Your task to perform on an android device: Open Youtube and go to "Your channel" Image 0: 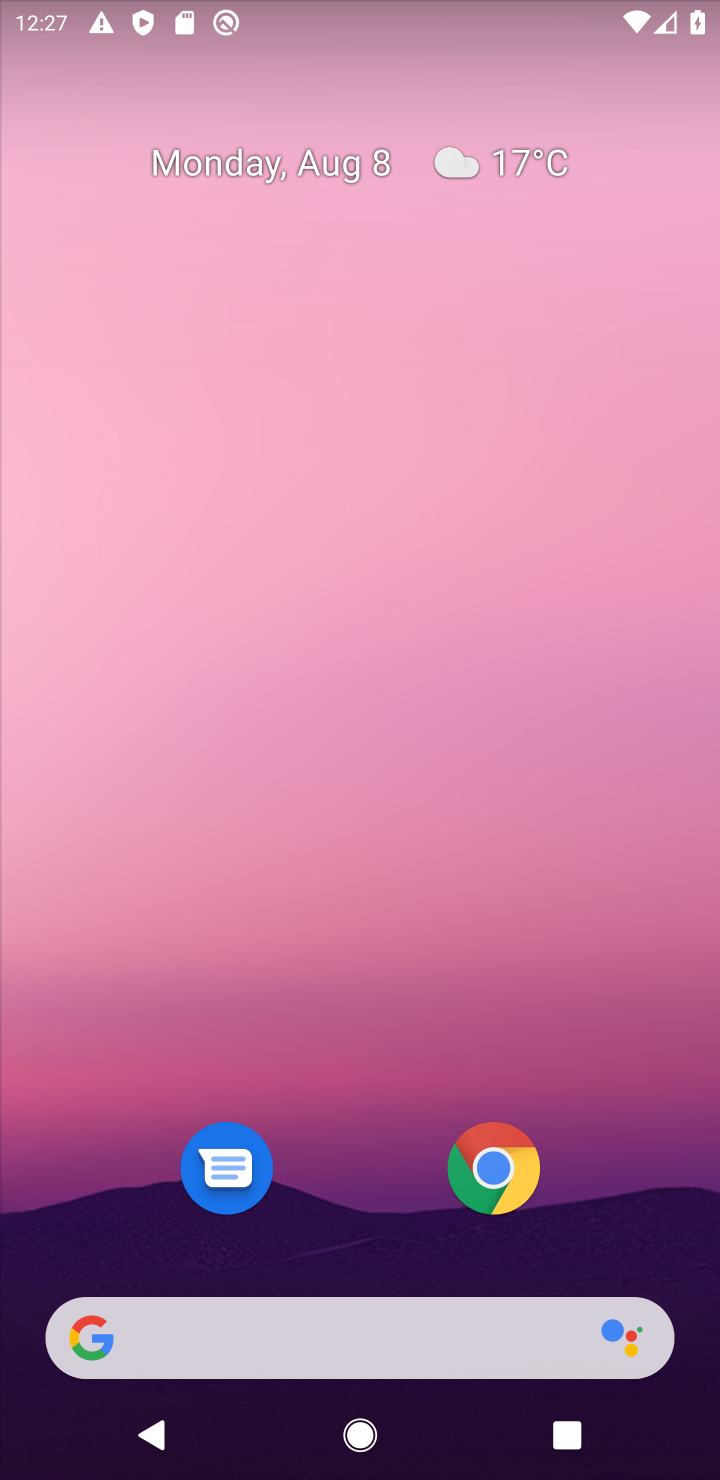
Step 0: drag from (44, 1395) to (515, 506)
Your task to perform on an android device: Open Youtube and go to "Your channel" Image 1: 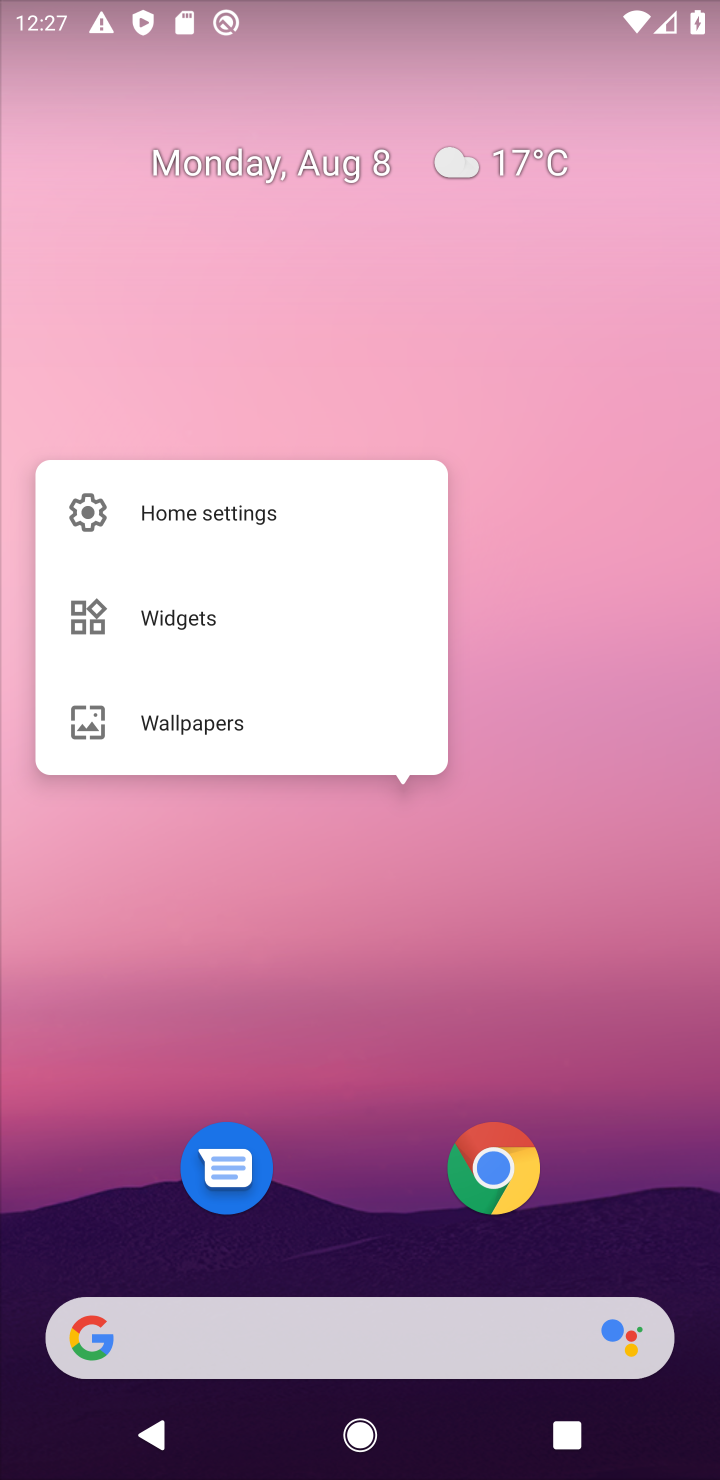
Step 1: drag from (94, 1418) to (645, 402)
Your task to perform on an android device: Open Youtube and go to "Your channel" Image 2: 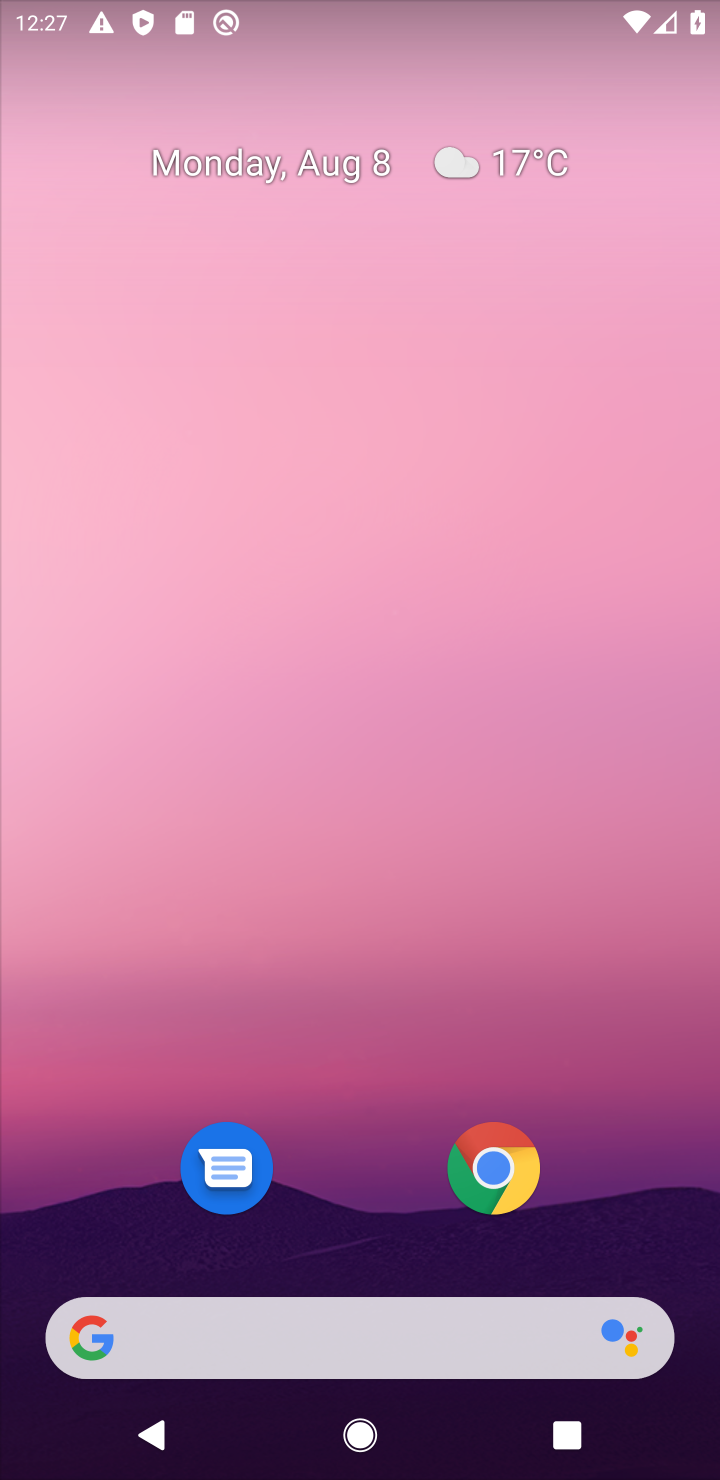
Step 2: click (44, 1418)
Your task to perform on an android device: Open Youtube and go to "Your channel" Image 3: 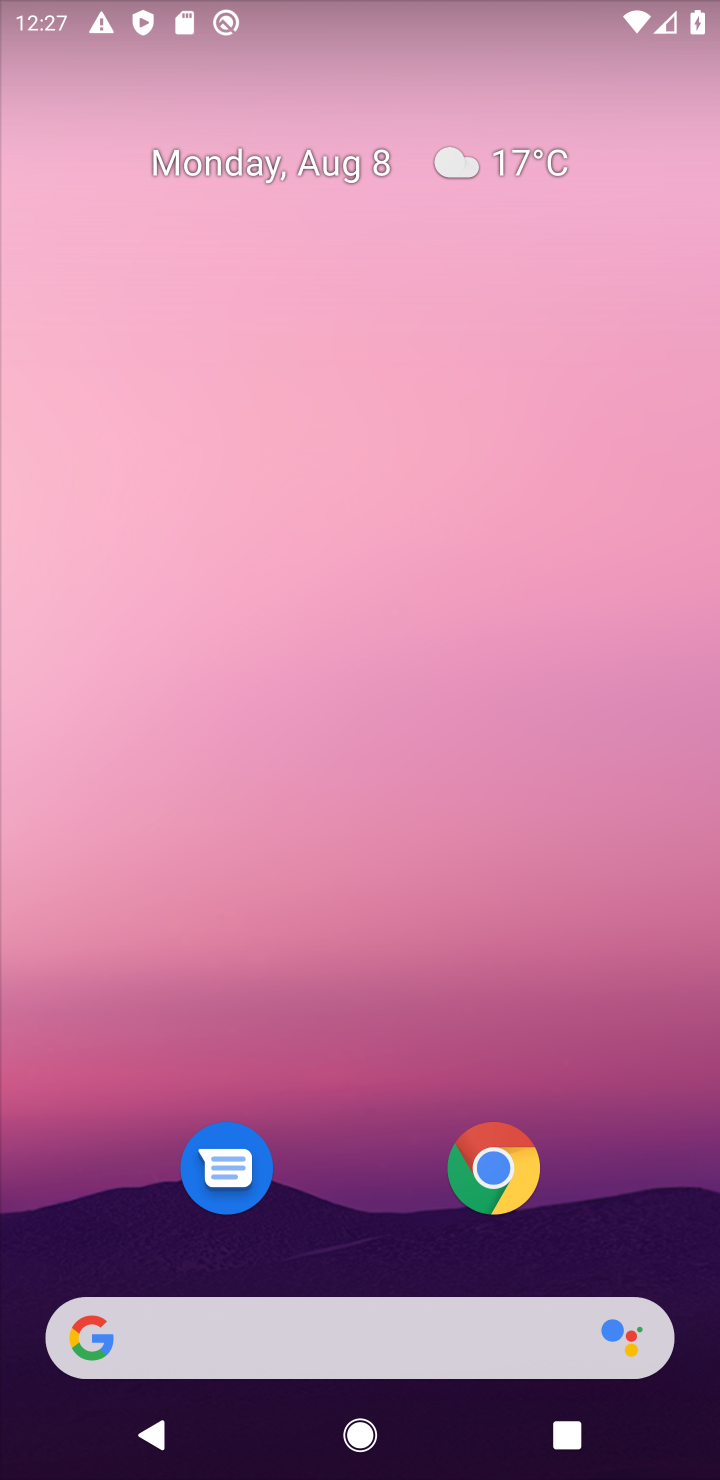
Step 3: drag from (60, 1388) to (343, 643)
Your task to perform on an android device: Open Youtube and go to "Your channel" Image 4: 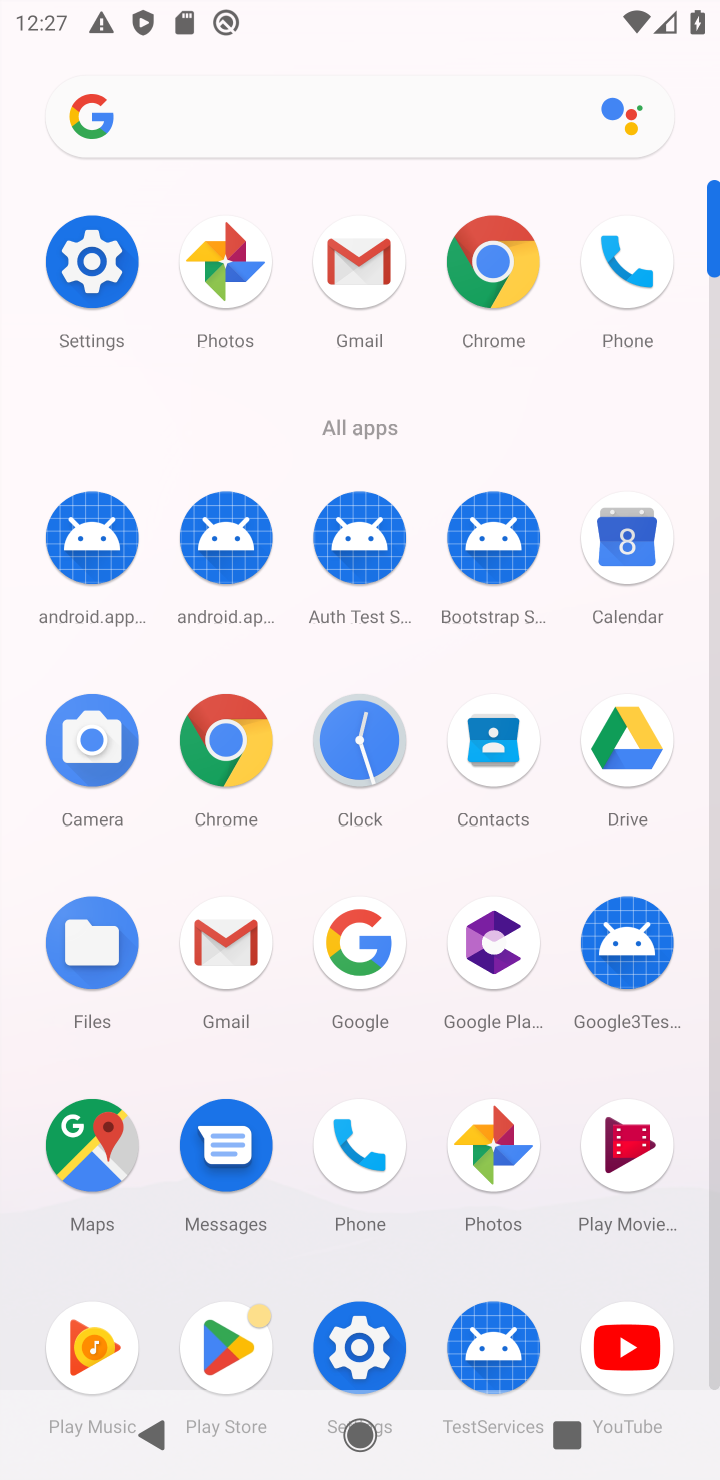
Step 4: click (629, 1349)
Your task to perform on an android device: Open Youtube and go to "Your channel" Image 5: 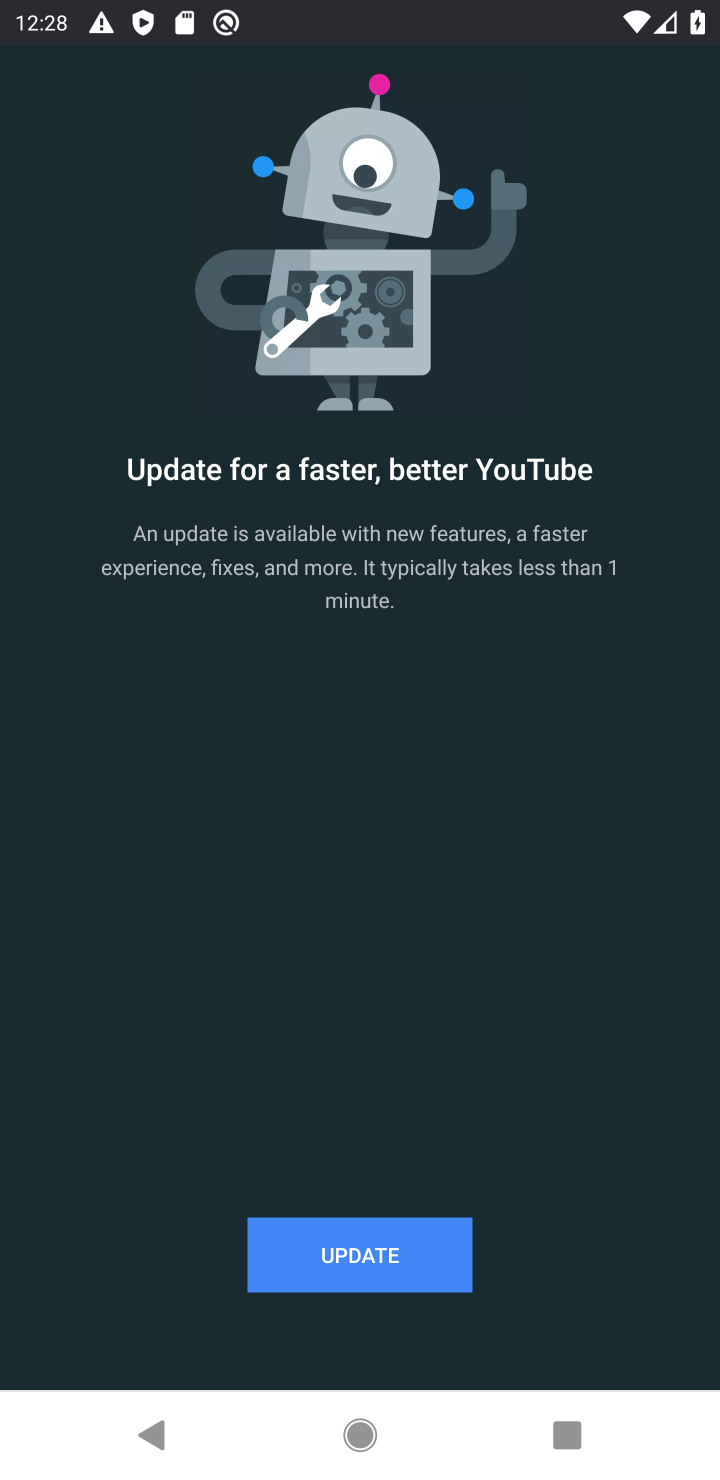
Step 5: click (370, 1263)
Your task to perform on an android device: Open Youtube and go to "Your channel" Image 6: 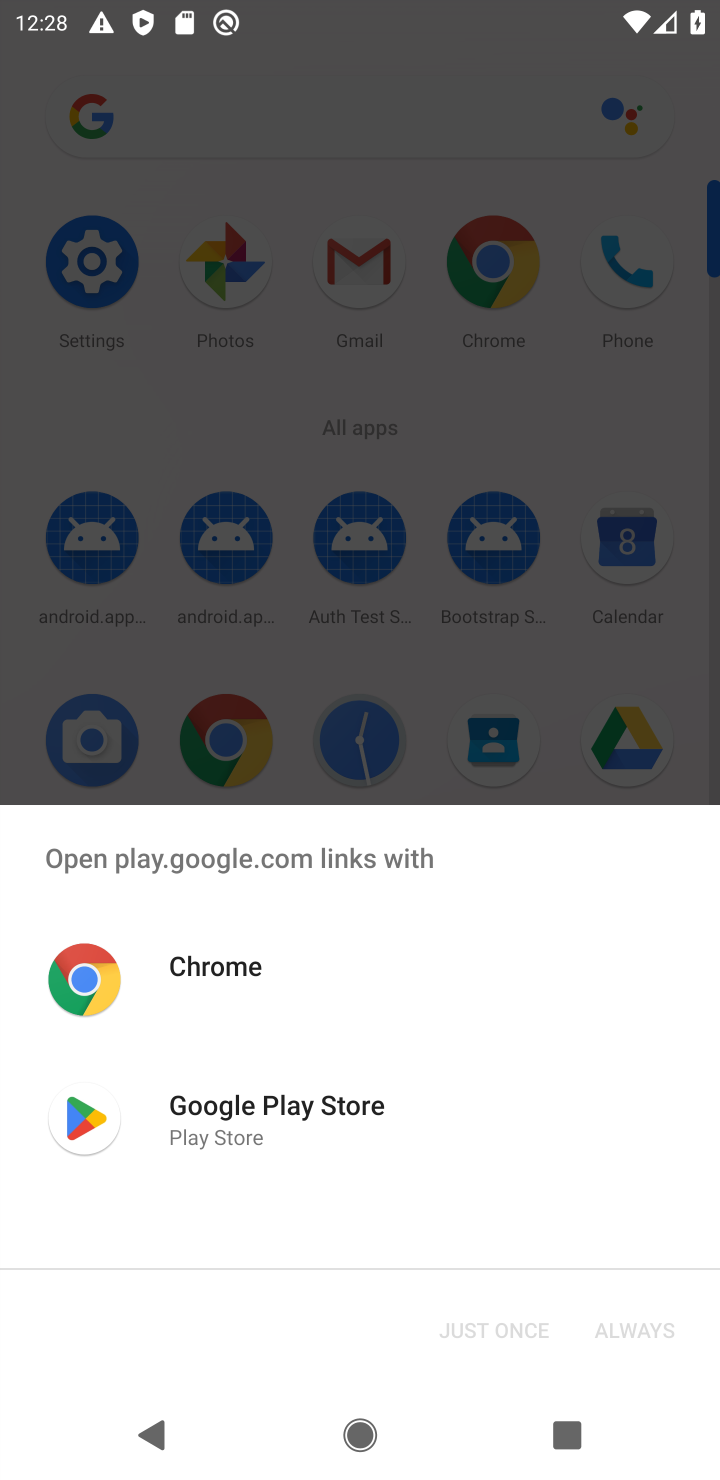
Step 6: click (288, 1130)
Your task to perform on an android device: Open Youtube and go to "Your channel" Image 7: 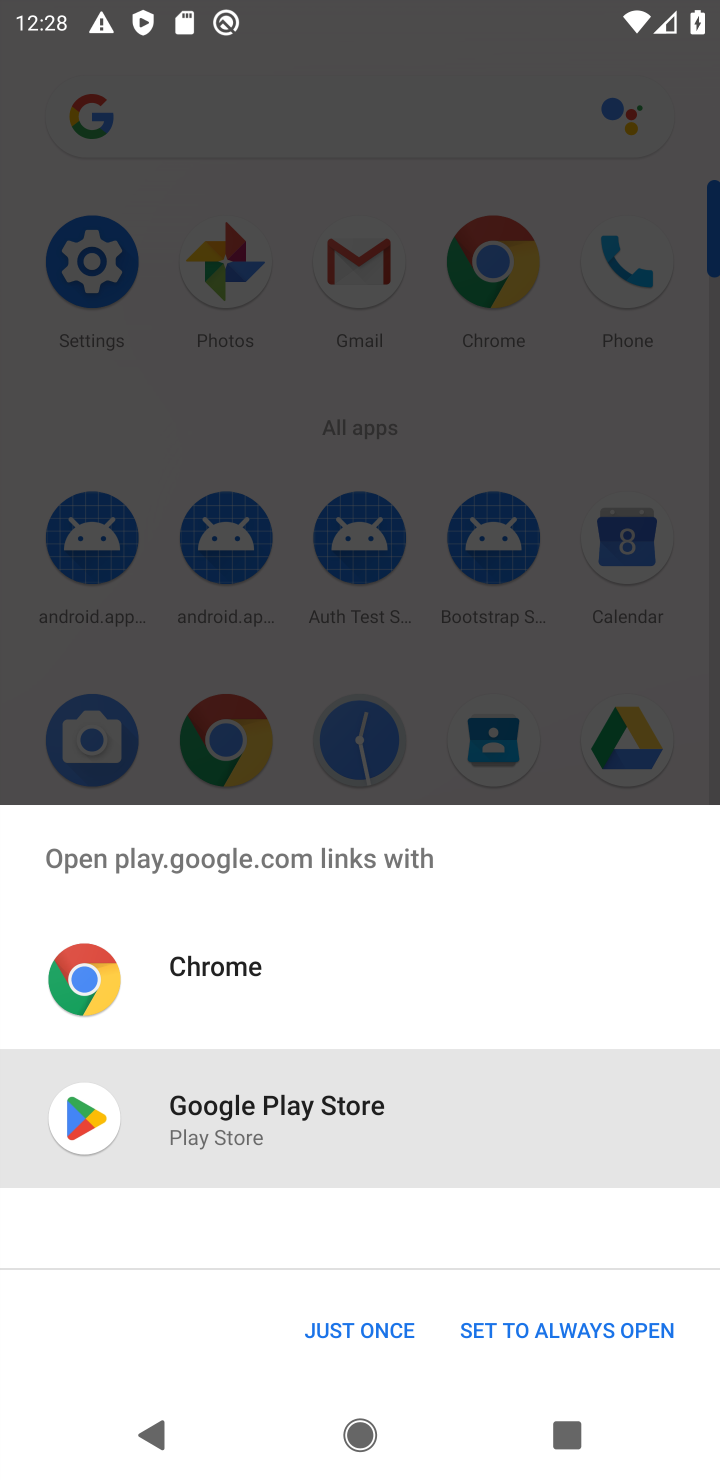
Step 7: click (355, 1335)
Your task to perform on an android device: Open Youtube and go to "Your channel" Image 8: 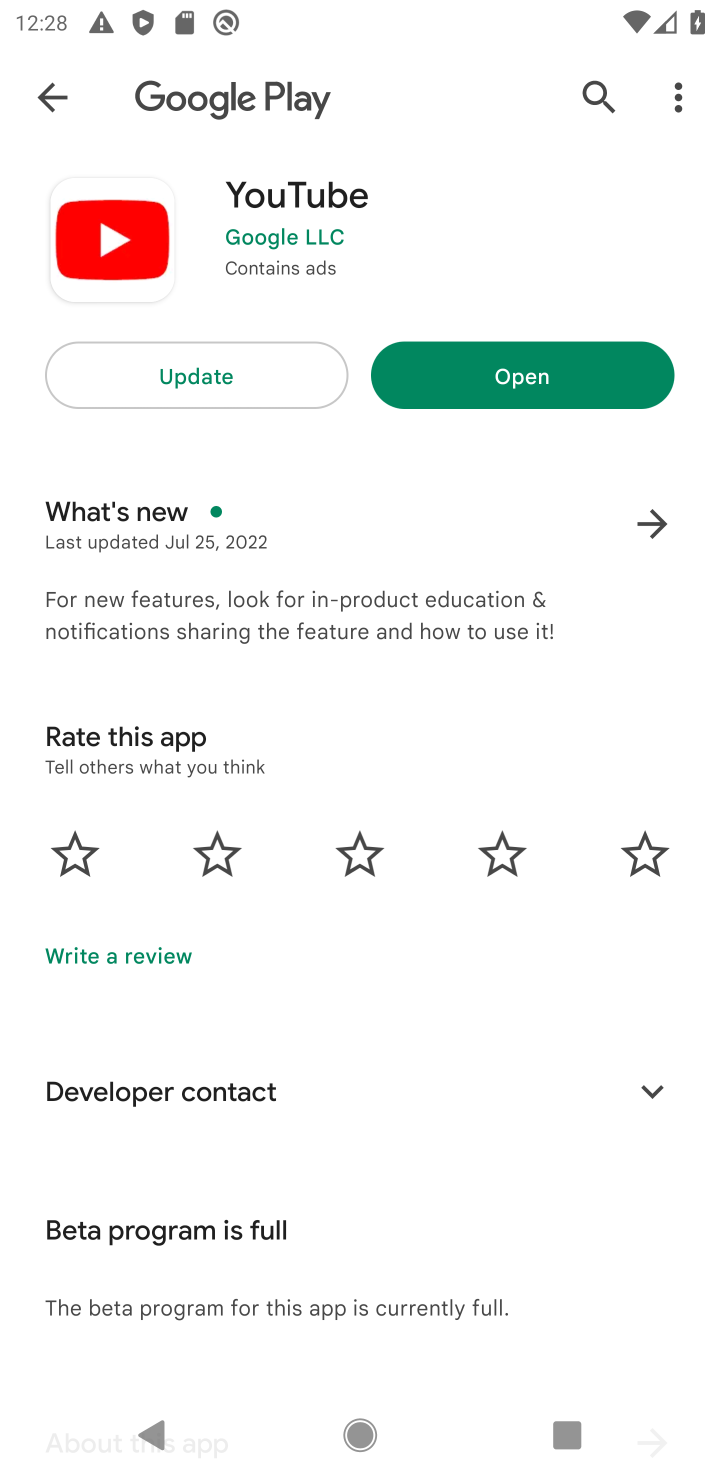
Step 8: click (511, 379)
Your task to perform on an android device: Open Youtube and go to "Your channel" Image 9: 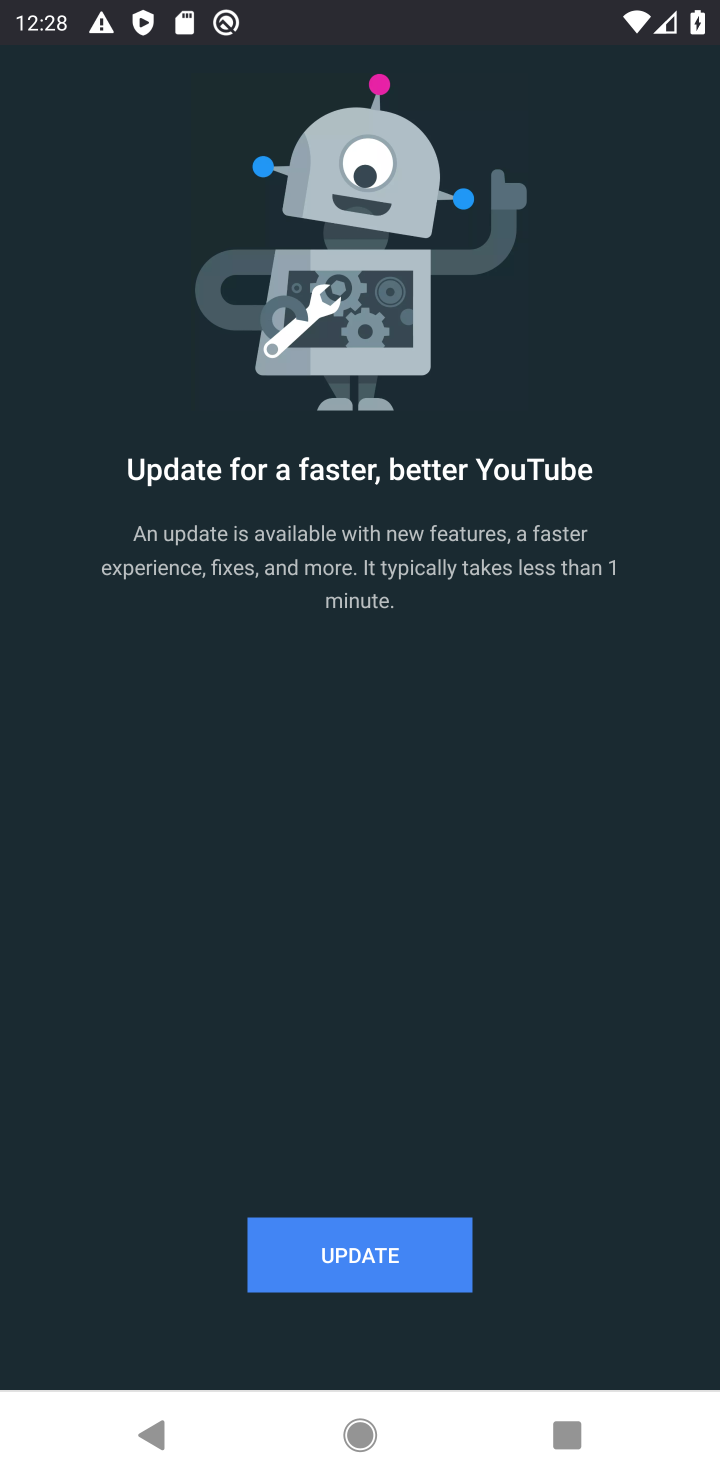
Step 9: task complete